Your task to perform on an android device: Go to notification settings Image 0: 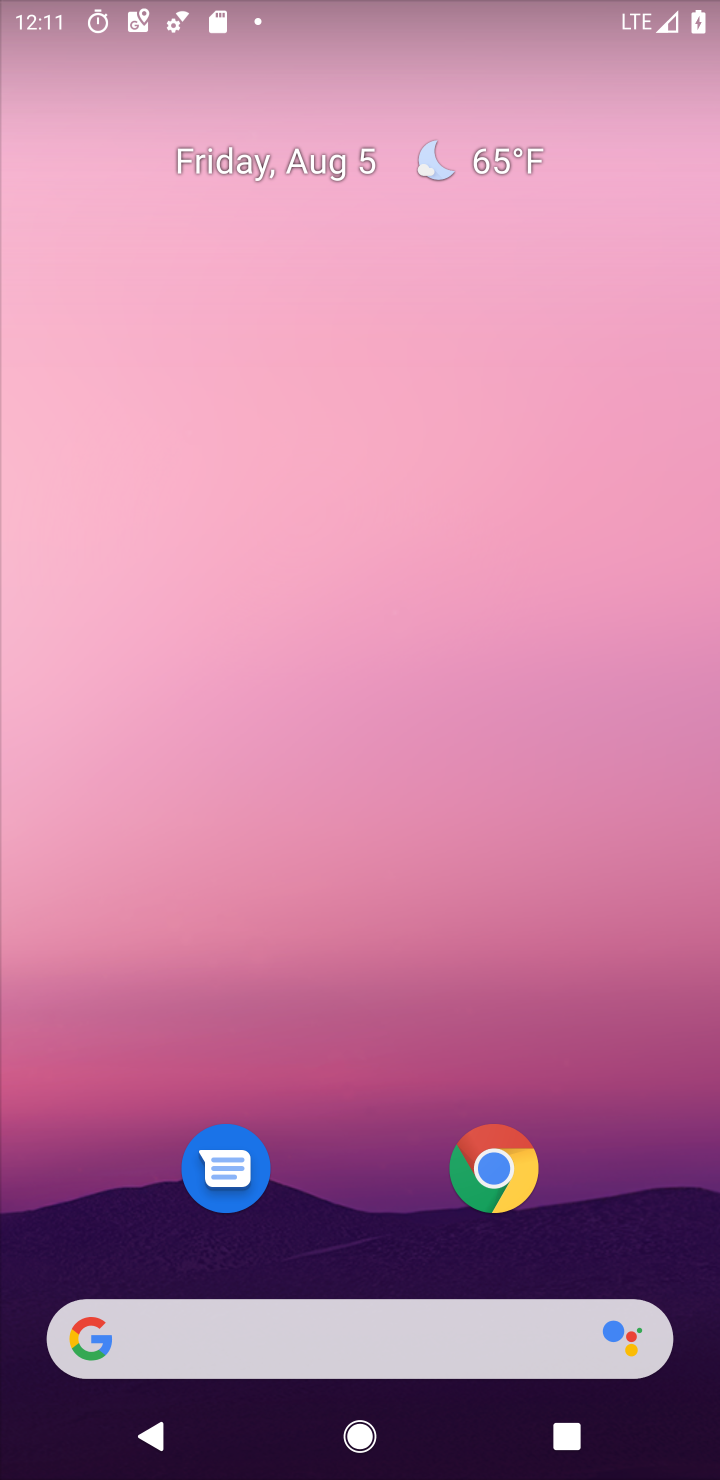
Step 0: drag from (286, 654) to (324, 27)
Your task to perform on an android device: Go to notification settings Image 1: 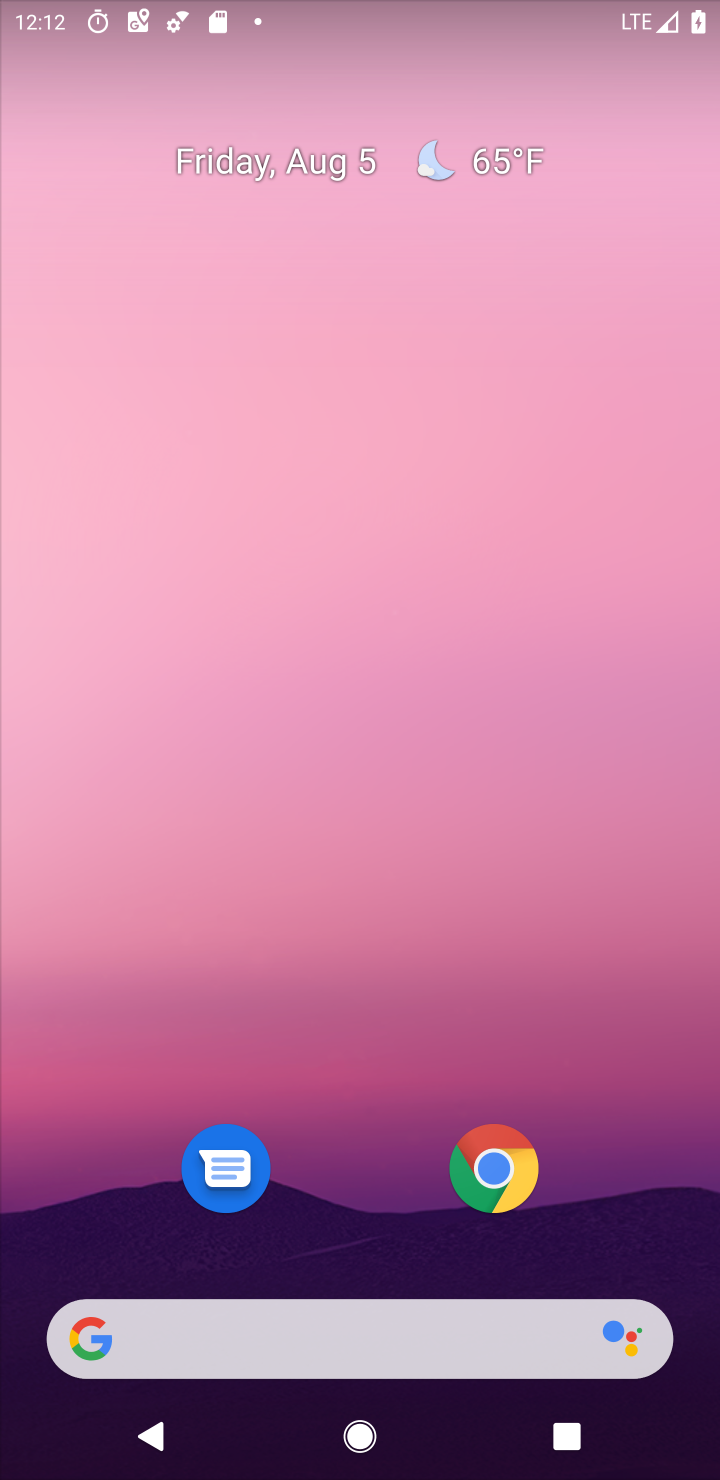
Step 1: drag from (318, 1258) to (337, 113)
Your task to perform on an android device: Go to notification settings Image 2: 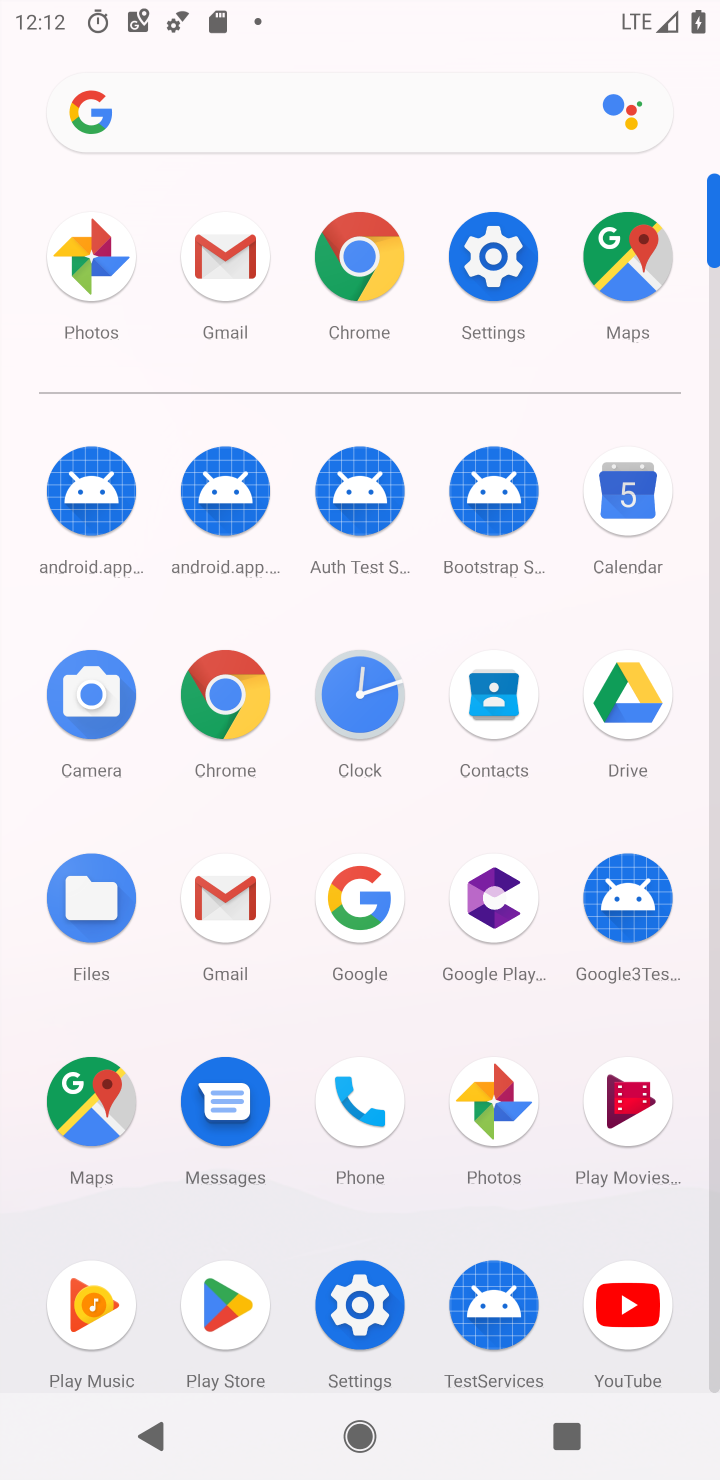
Step 2: click (354, 1284)
Your task to perform on an android device: Go to notification settings Image 3: 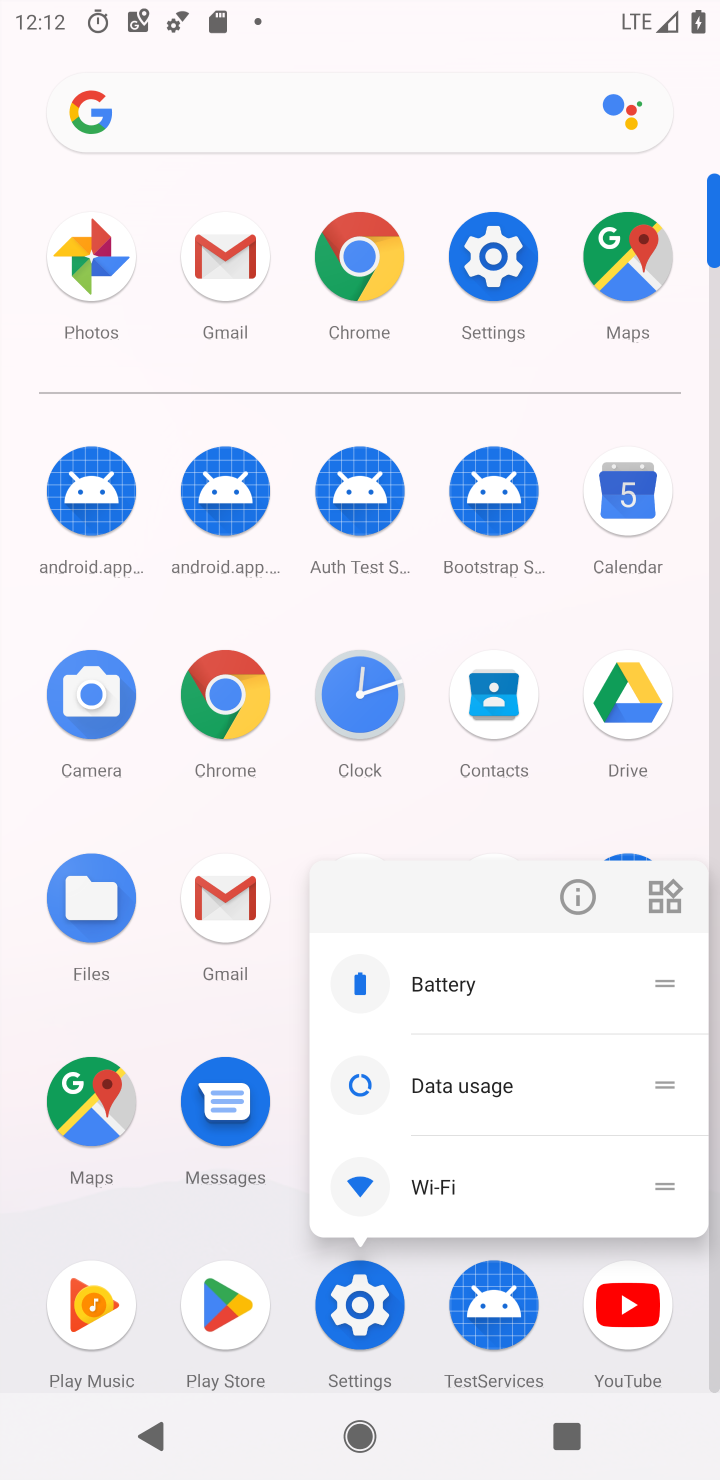
Step 3: click (364, 1314)
Your task to perform on an android device: Go to notification settings Image 4: 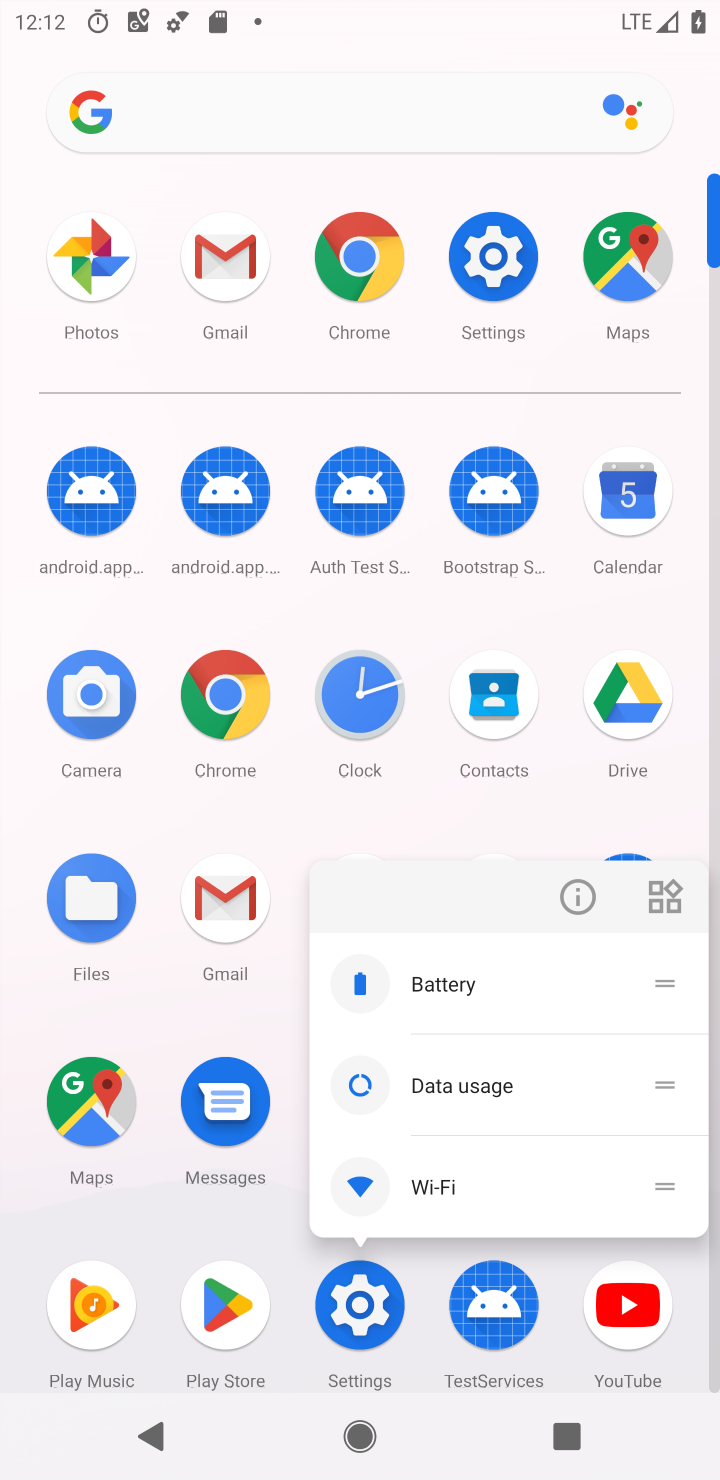
Step 4: click (368, 1326)
Your task to perform on an android device: Go to notification settings Image 5: 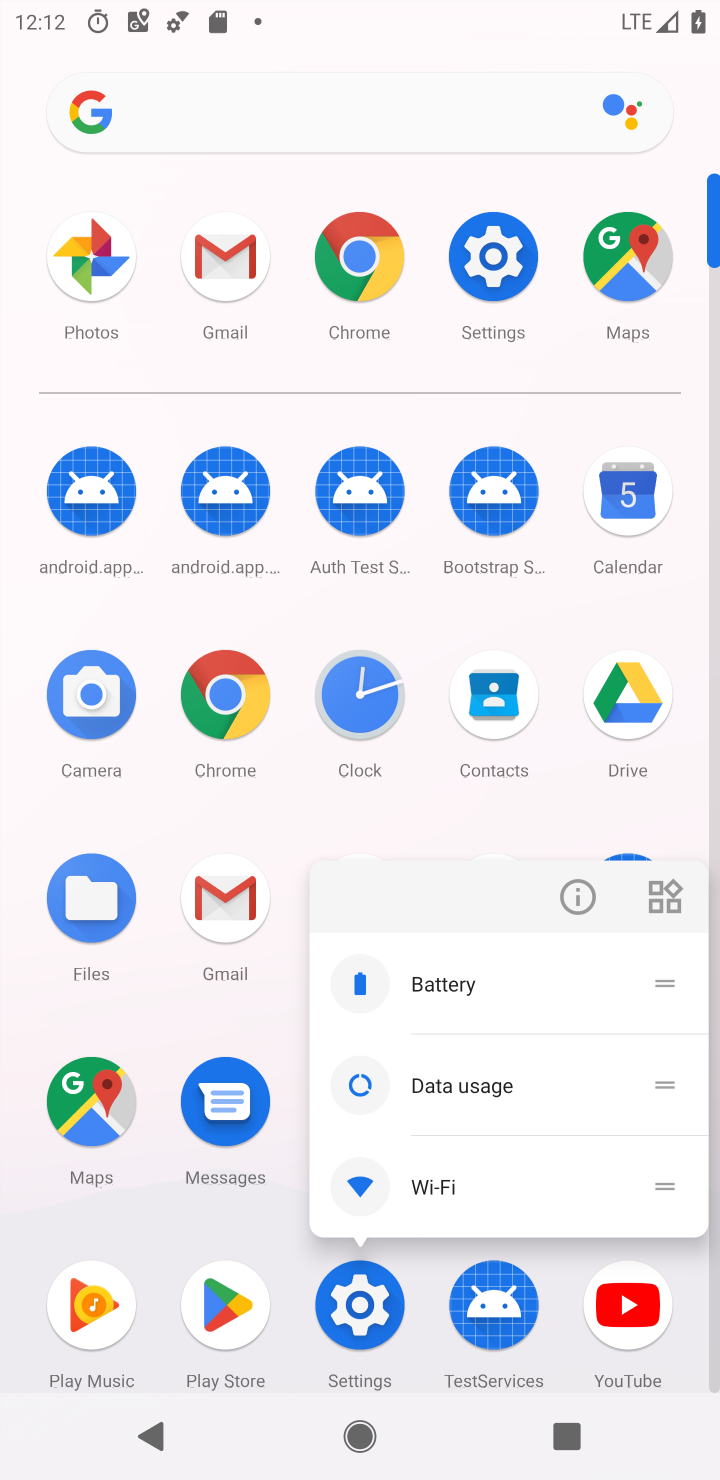
Step 5: click (352, 1343)
Your task to perform on an android device: Go to notification settings Image 6: 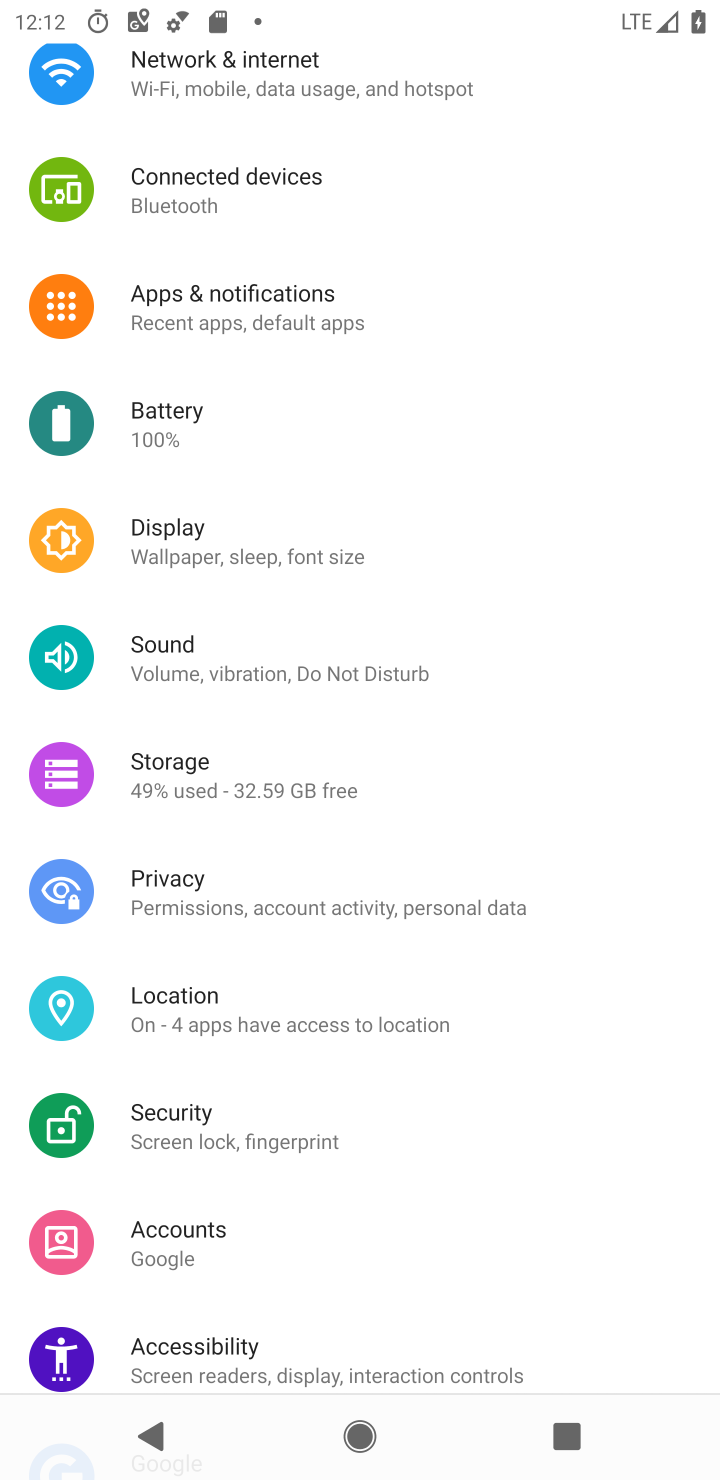
Step 6: click (324, 307)
Your task to perform on an android device: Go to notification settings Image 7: 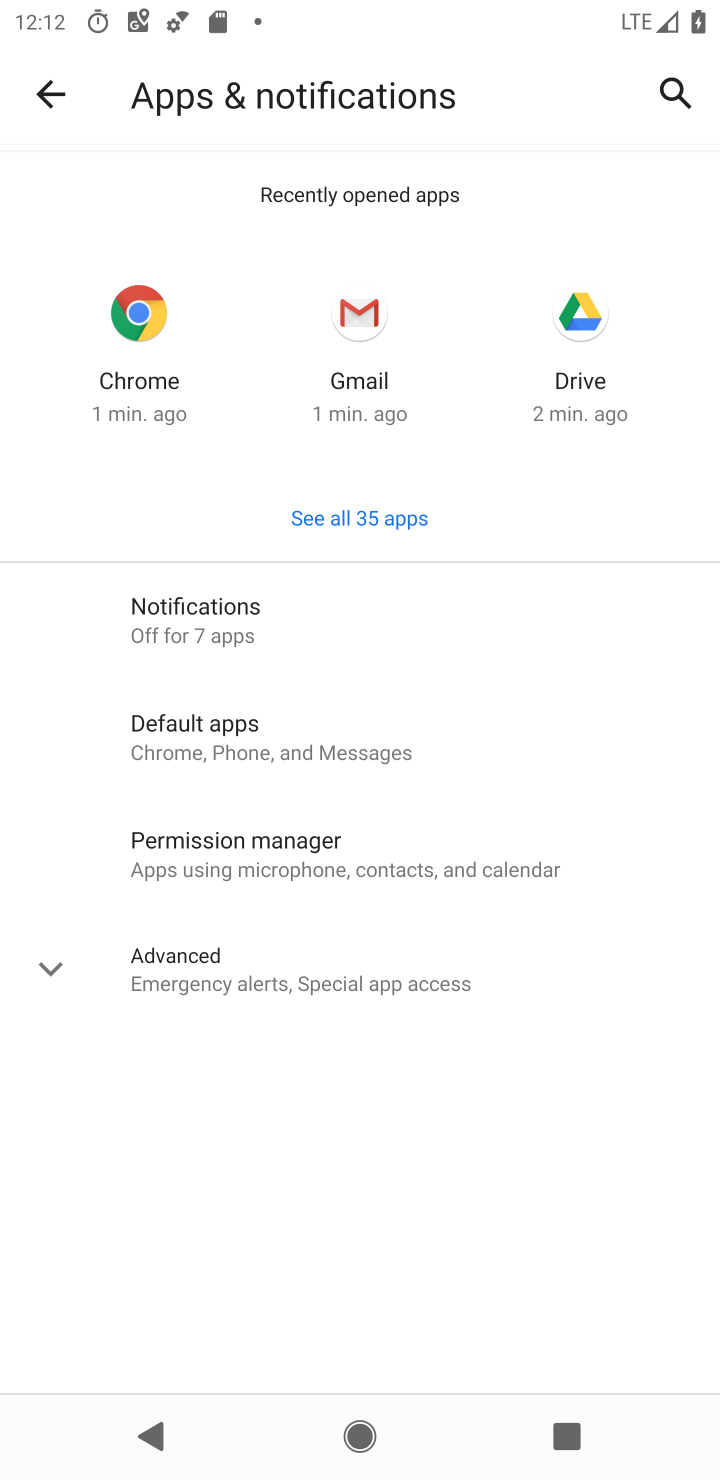
Step 7: click (289, 632)
Your task to perform on an android device: Go to notification settings Image 8: 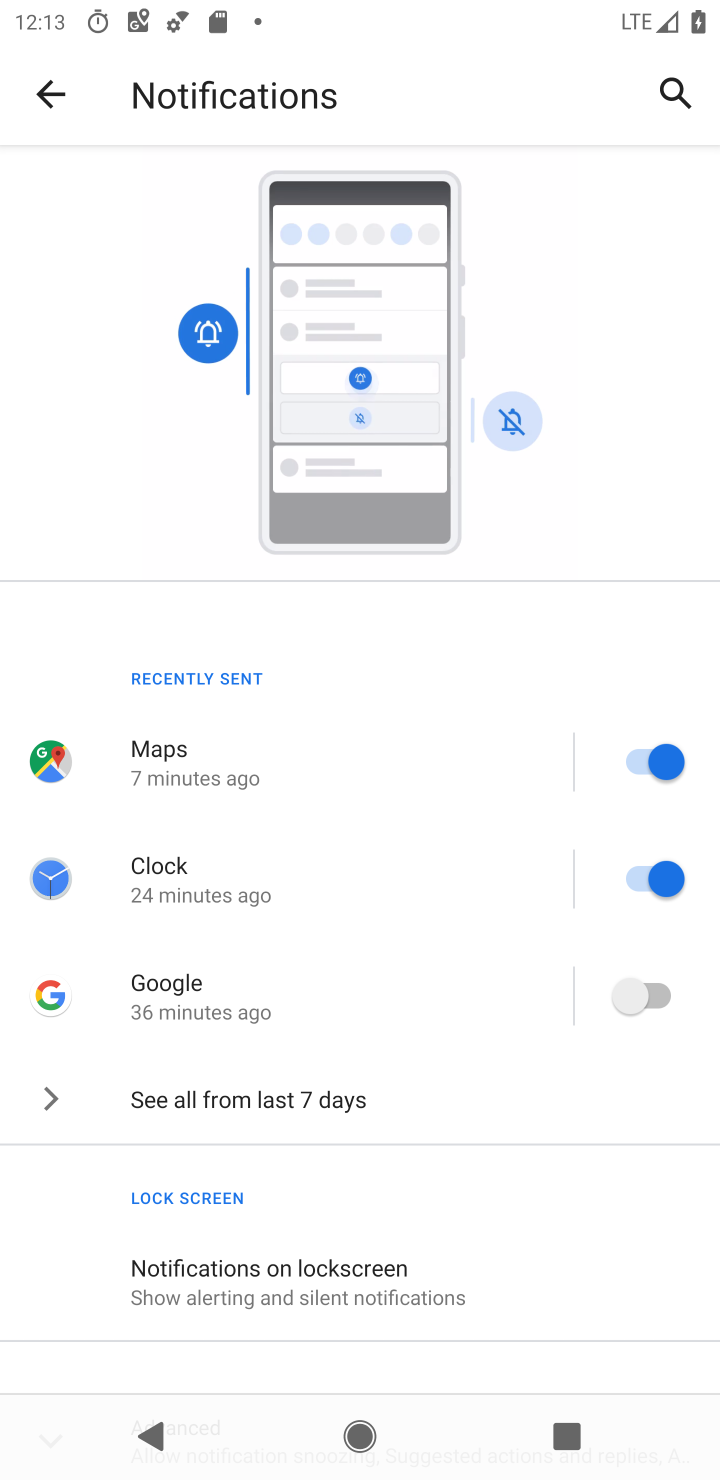
Step 8: task complete